Your task to perform on an android device: Open the stopwatch Image 0: 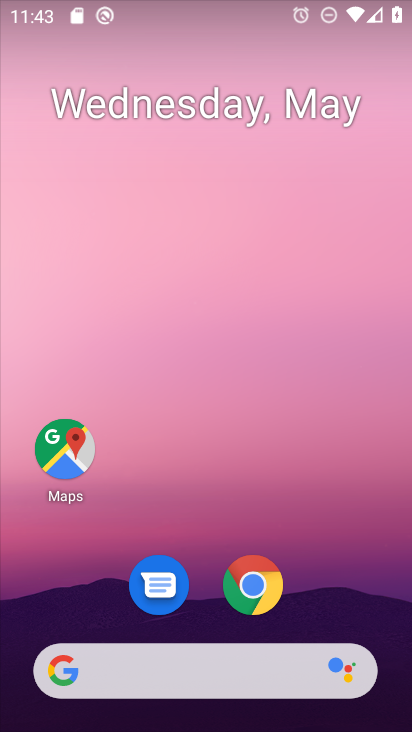
Step 0: drag from (249, 485) to (270, 31)
Your task to perform on an android device: Open the stopwatch Image 1: 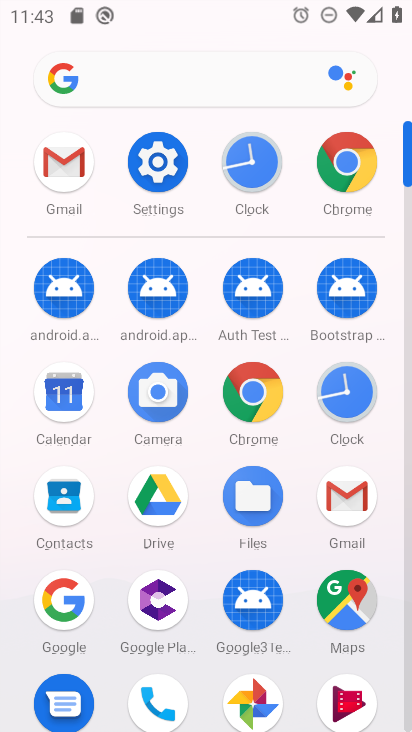
Step 1: click (251, 152)
Your task to perform on an android device: Open the stopwatch Image 2: 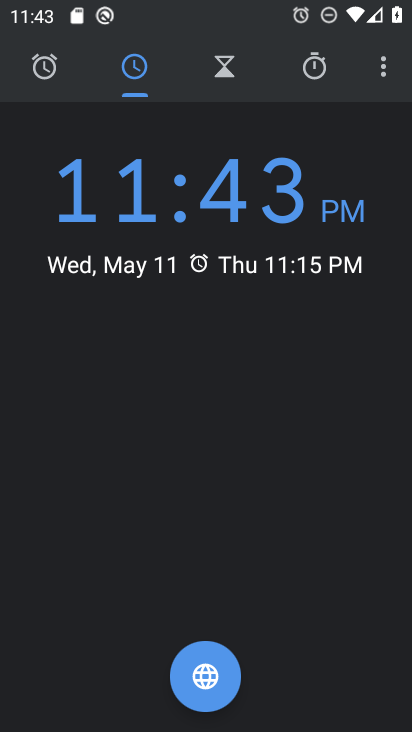
Step 2: click (309, 78)
Your task to perform on an android device: Open the stopwatch Image 3: 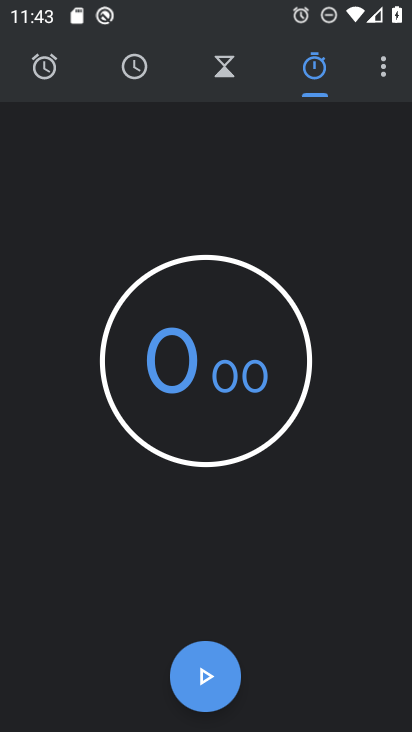
Step 3: task complete